Your task to perform on an android device: Search for Mexican restaurants on Maps Image 0: 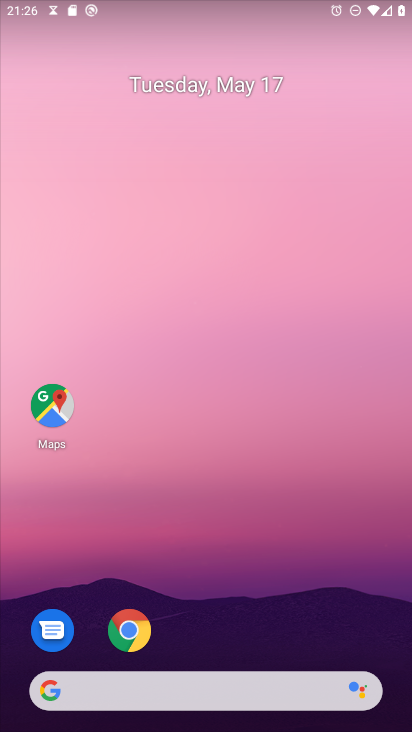
Step 0: click (46, 411)
Your task to perform on an android device: Search for Mexican restaurants on Maps Image 1: 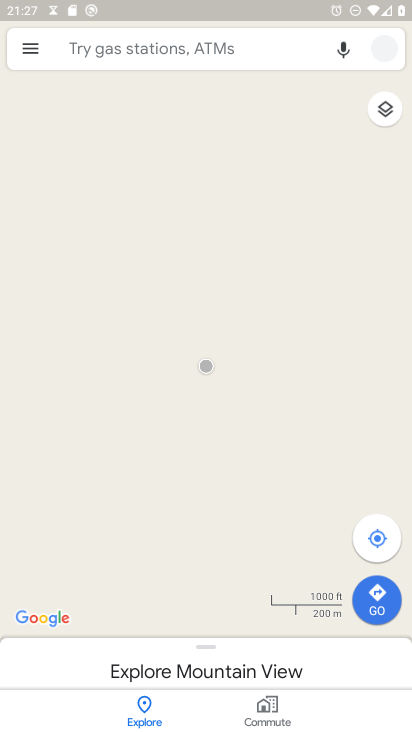
Step 1: click (192, 53)
Your task to perform on an android device: Search for Mexican restaurants on Maps Image 2: 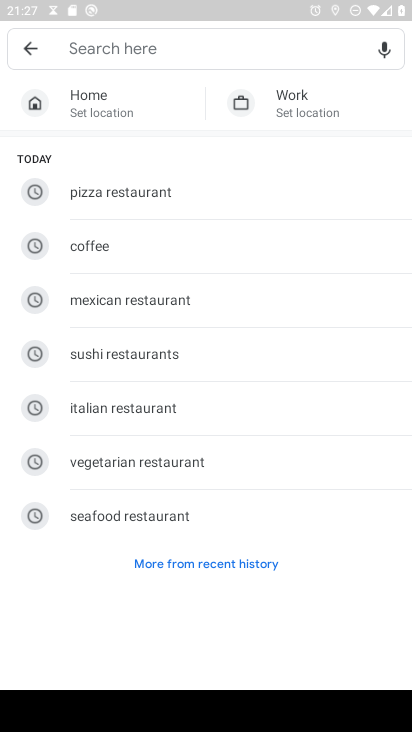
Step 2: click (111, 298)
Your task to perform on an android device: Search for Mexican restaurants on Maps Image 3: 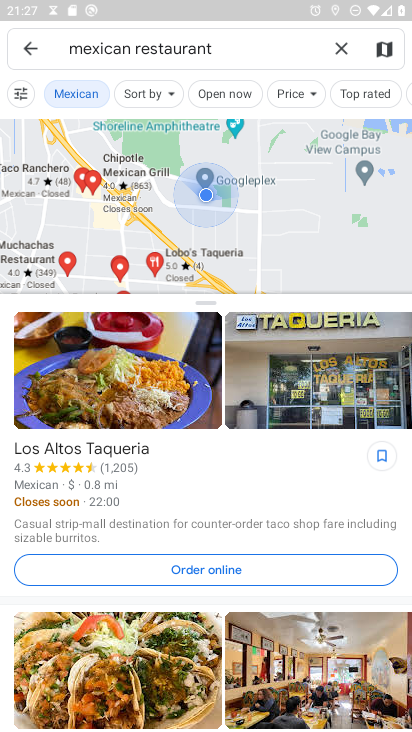
Step 3: task complete